Your task to perform on an android device: Show me recent news Image 0: 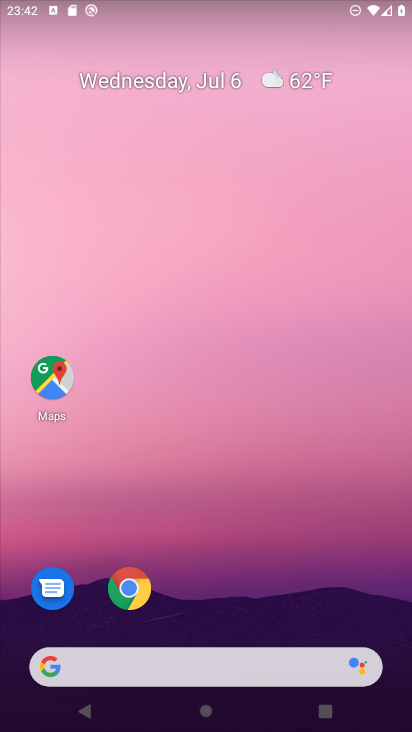
Step 0: drag from (19, 259) to (390, 252)
Your task to perform on an android device: Show me recent news Image 1: 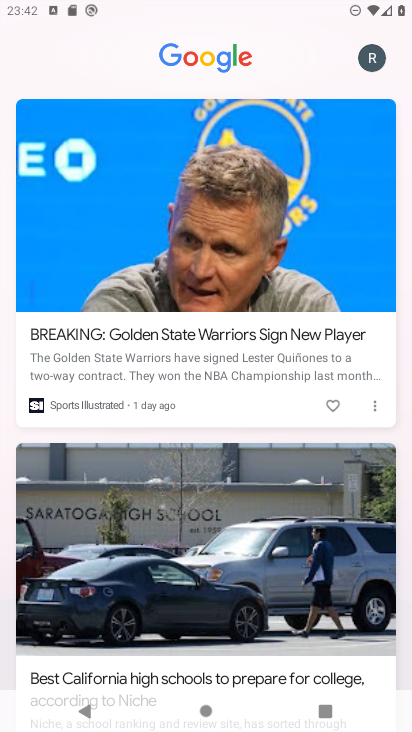
Step 1: task complete